Your task to perform on an android device: Play the last video I watched on Youtube Image 0: 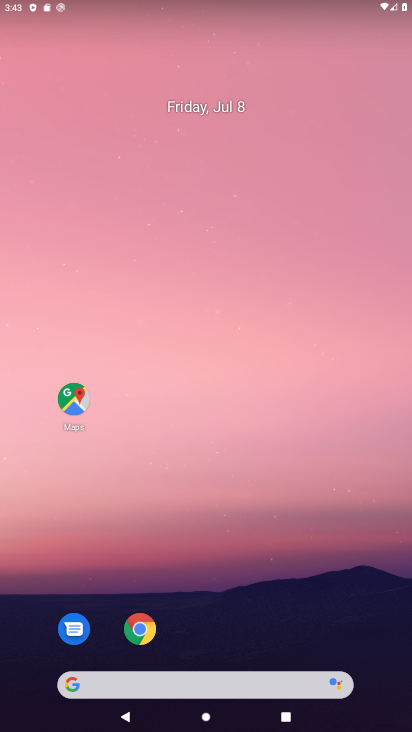
Step 0: drag from (194, 650) to (149, 49)
Your task to perform on an android device: Play the last video I watched on Youtube Image 1: 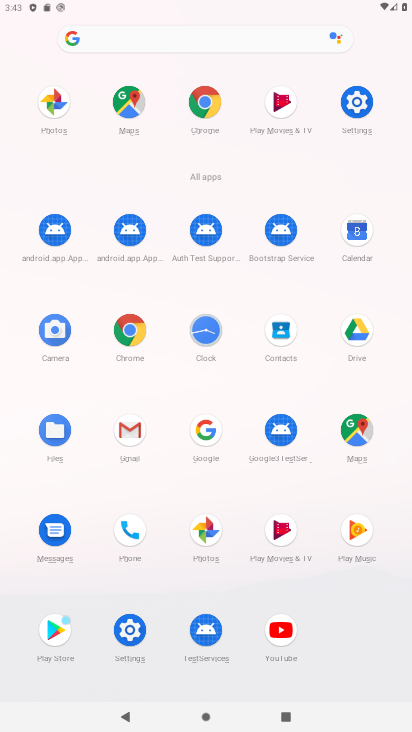
Step 1: click (281, 625)
Your task to perform on an android device: Play the last video I watched on Youtube Image 2: 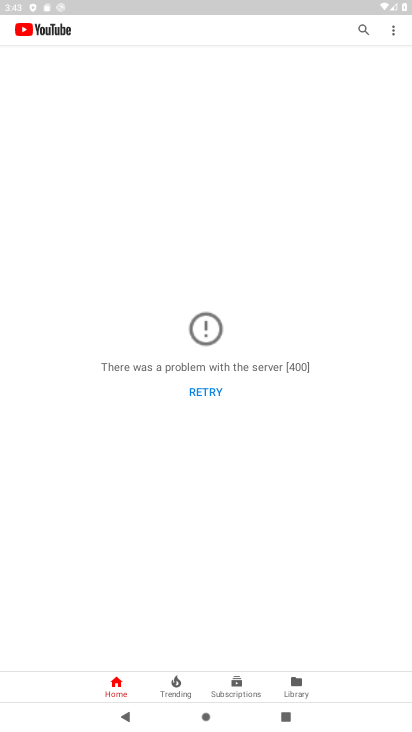
Step 2: click (192, 395)
Your task to perform on an android device: Play the last video I watched on Youtube Image 3: 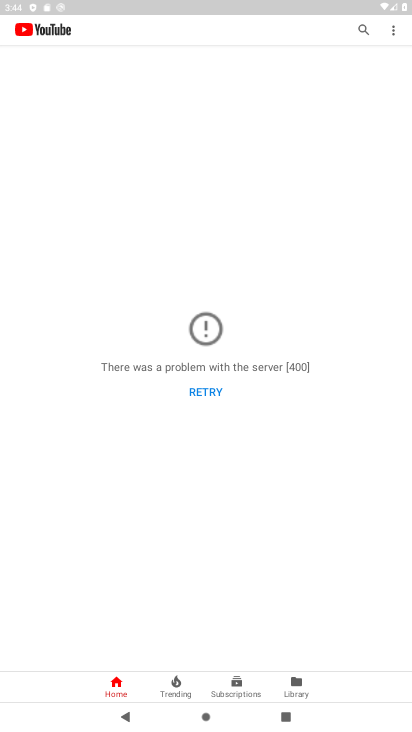
Step 3: task complete